Your task to perform on an android device: Go to internet settings Image 0: 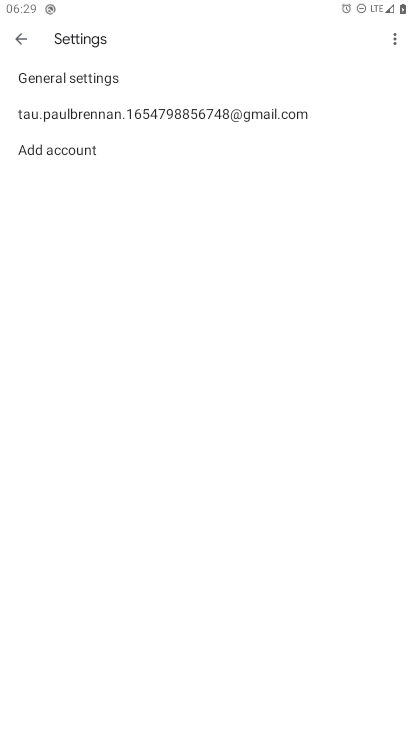
Step 0: press home button
Your task to perform on an android device: Go to internet settings Image 1: 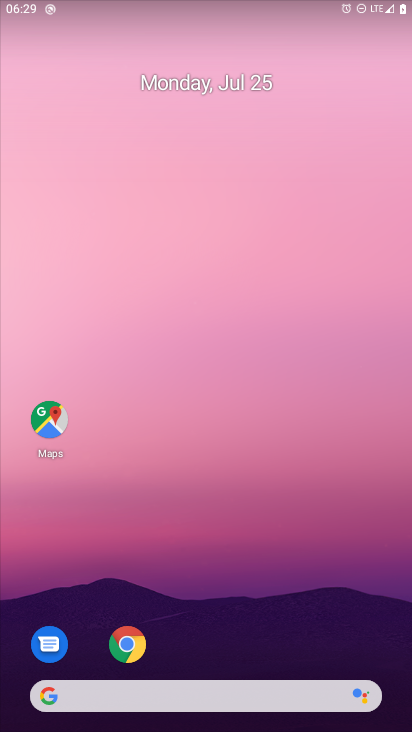
Step 1: press home button
Your task to perform on an android device: Go to internet settings Image 2: 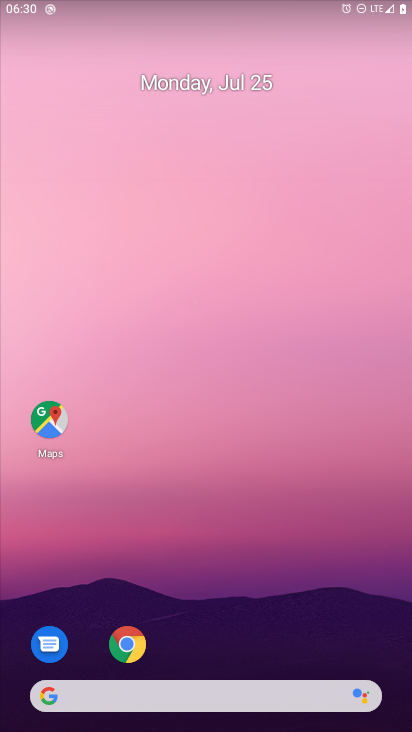
Step 2: drag from (243, 660) to (278, 195)
Your task to perform on an android device: Go to internet settings Image 3: 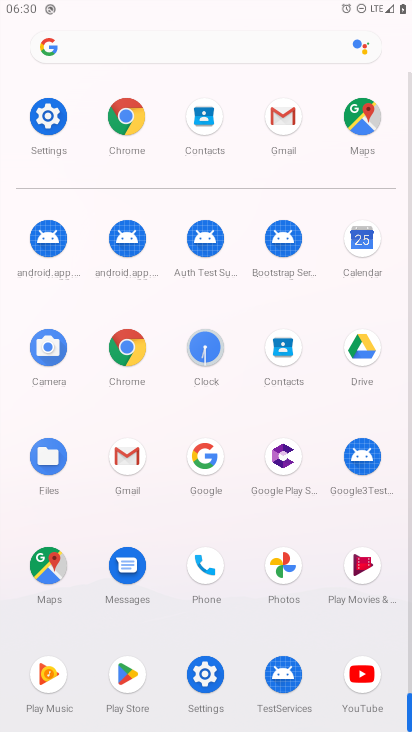
Step 3: click (45, 118)
Your task to perform on an android device: Go to internet settings Image 4: 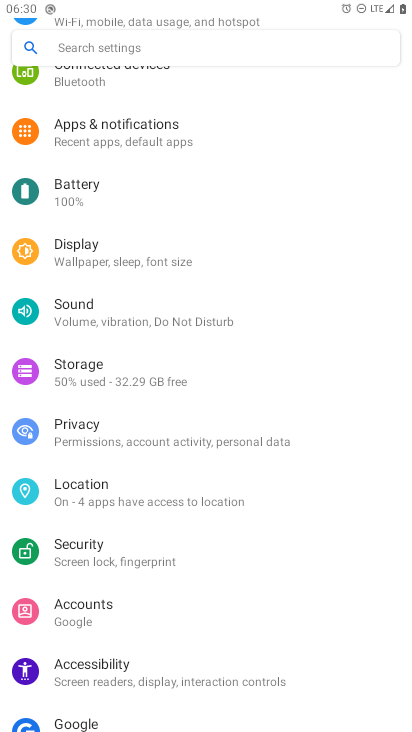
Step 4: drag from (299, 129) to (354, 510)
Your task to perform on an android device: Go to internet settings Image 5: 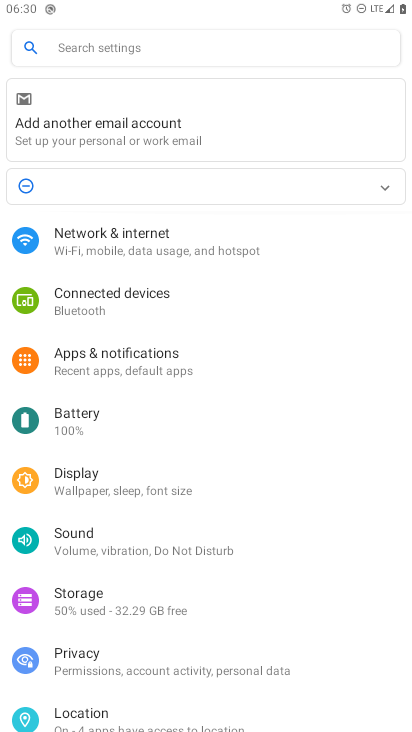
Step 5: click (93, 245)
Your task to perform on an android device: Go to internet settings Image 6: 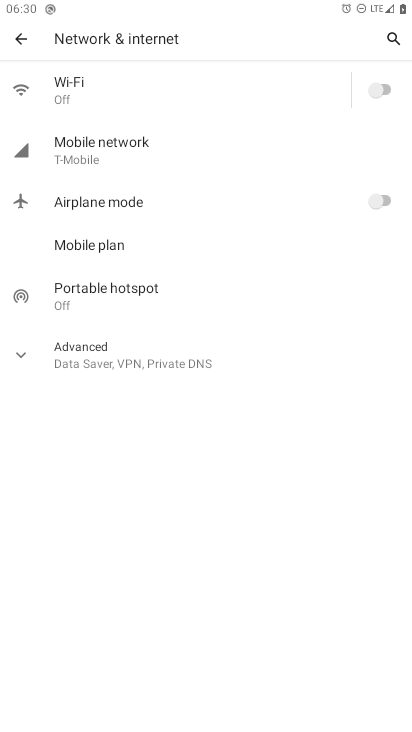
Step 6: task complete